Your task to perform on an android device: delete a single message in the gmail app Image 0: 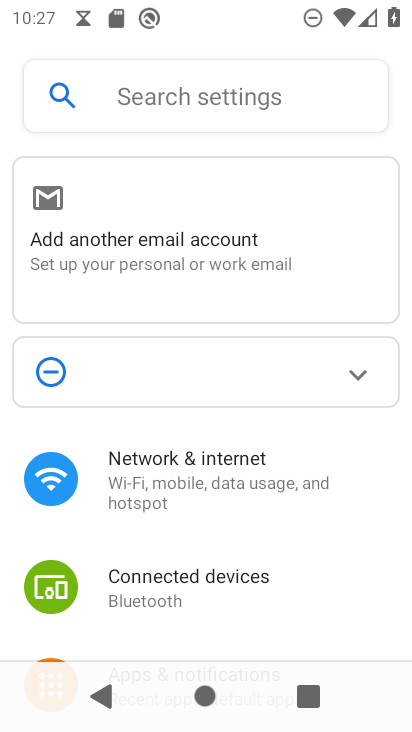
Step 0: press back button
Your task to perform on an android device: delete a single message in the gmail app Image 1: 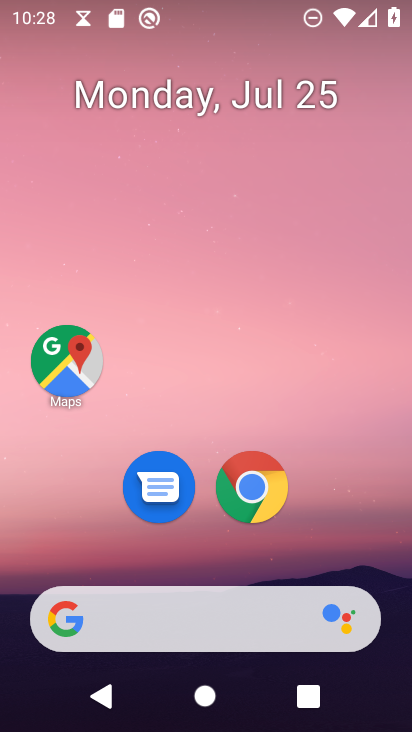
Step 1: drag from (207, 567) to (260, 15)
Your task to perform on an android device: delete a single message in the gmail app Image 2: 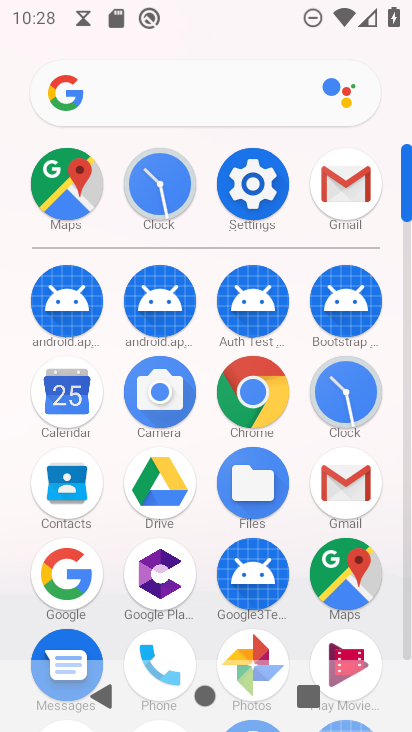
Step 2: click (358, 179)
Your task to perform on an android device: delete a single message in the gmail app Image 3: 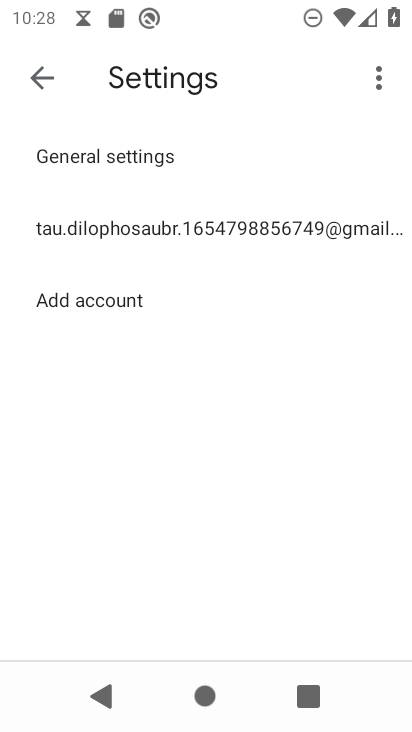
Step 3: click (48, 73)
Your task to perform on an android device: delete a single message in the gmail app Image 4: 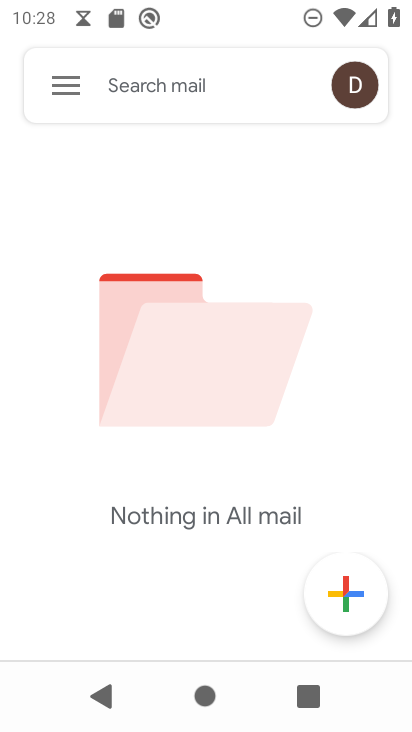
Step 4: task complete